Your task to perform on an android device: When is my next meeting? Image 0: 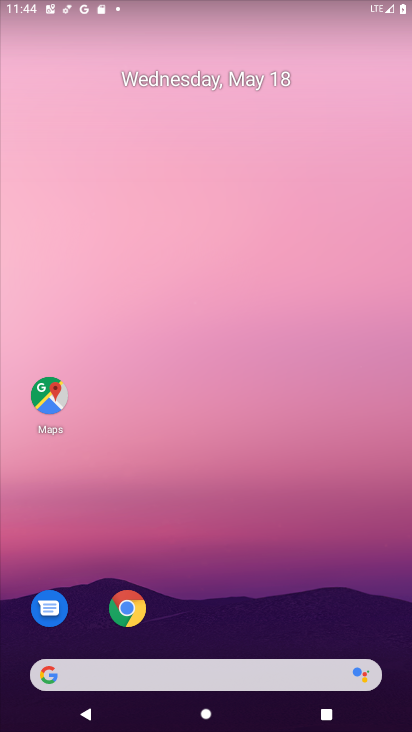
Step 0: drag from (168, 604) to (228, 189)
Your task to perform on an android device: When is my next meeting? Image 1: 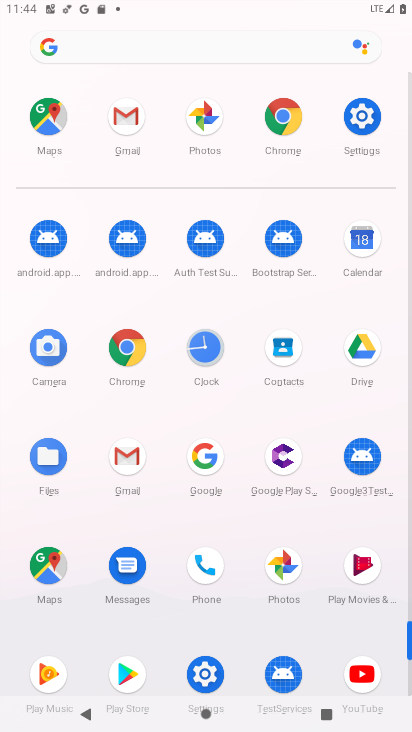
Step 1: click (363, 238)
Your task to perform on an android device: When is my next meeting? Image 2: 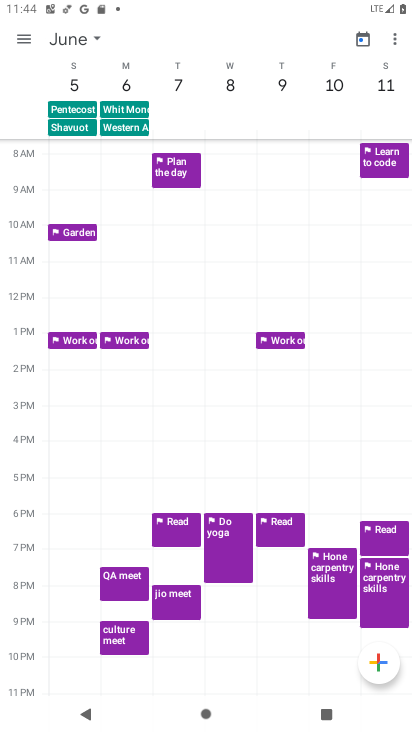
Step 2: click (77, 38)
Your task to perform on an android device: When is my next meeting? Image 3: 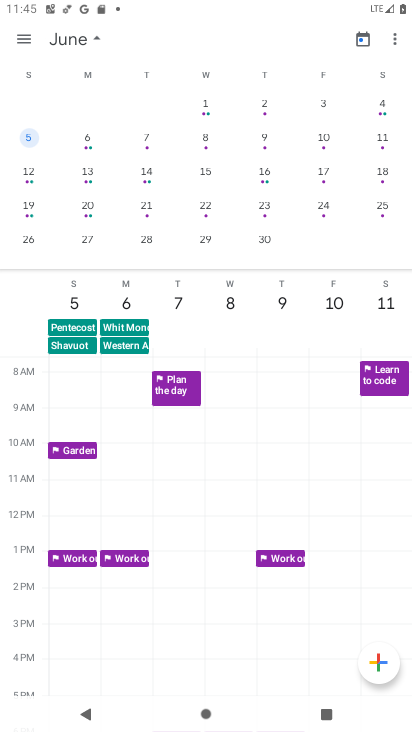
Step 3: click (75, 34)
Your task to perform on an android device: When is my next meeting? Image 4: 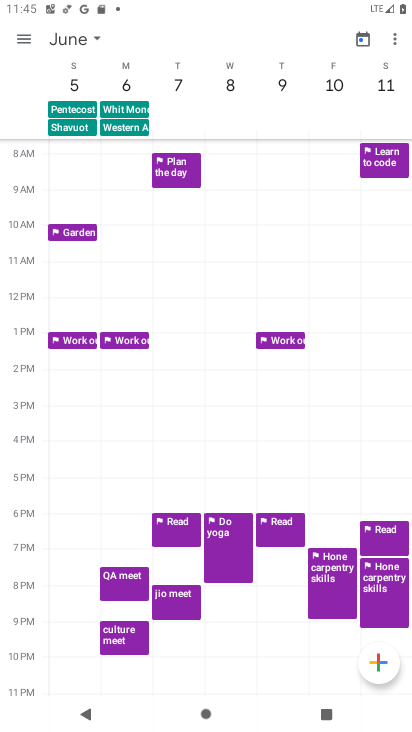
Step 4: click (82, 34)
Your task to perform on an android device: When is my next meeting? Image 5: 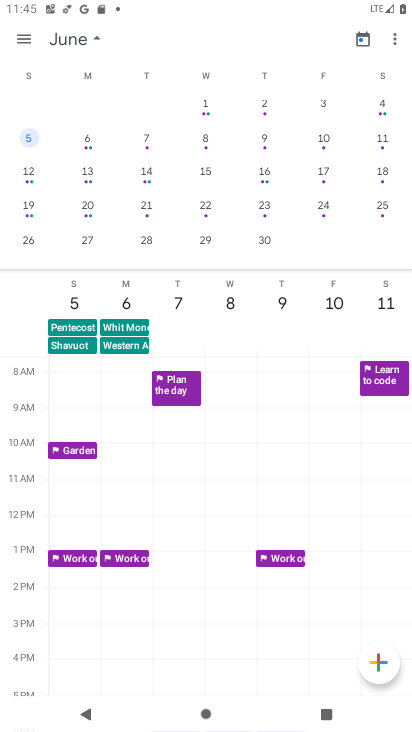
Step 5: drag from (30, 188) to (388, 228)
Your task to perform on an android device: When is my next meeting? Image 6: 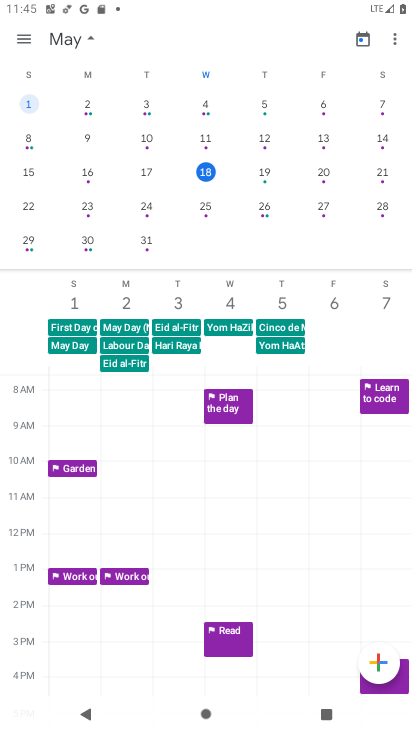
Step 6: click (210, 172)
Your task to perform on an android device: When is my next meeting? Image 7: 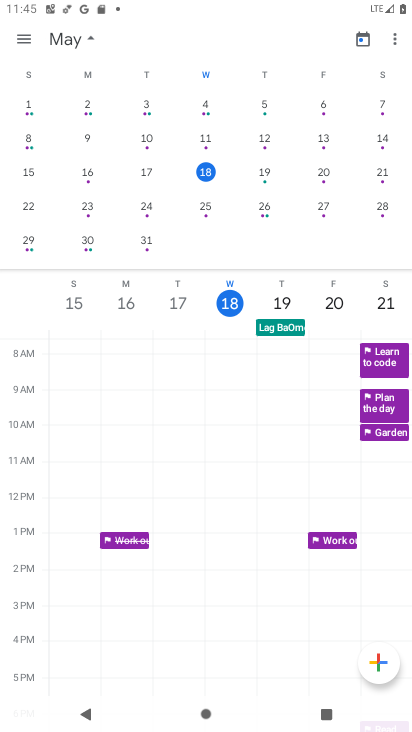
Step 7: click (26, 41)
Your task to perform on an android device: When is my next meeting? Image 8: 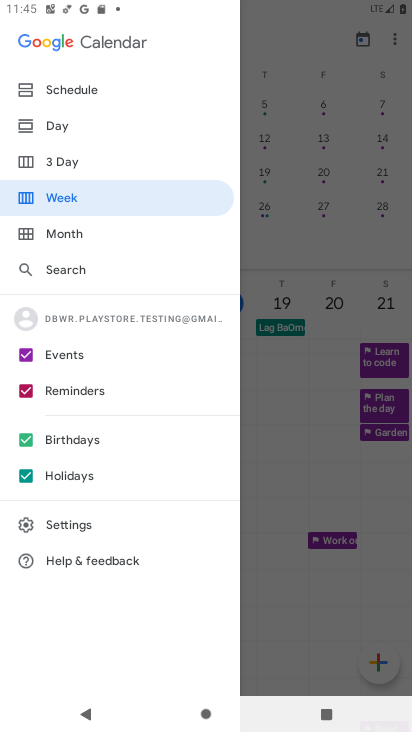
Step 8: click (88, 79)
Your task to perform on an android device: When is my next meeting? Image 9: 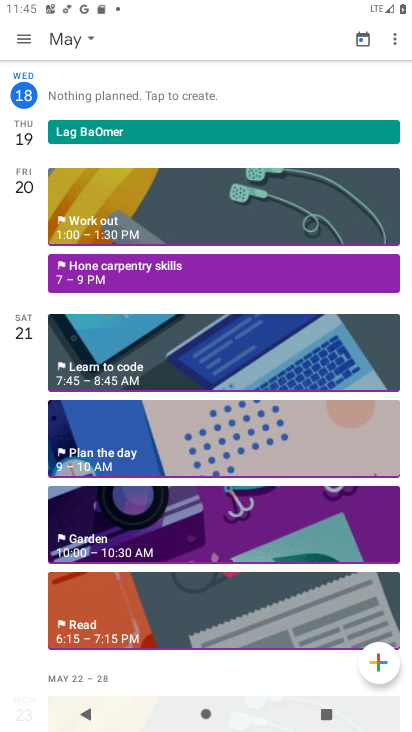
Step 9: click (90, 211)
Your task to perform on an android device: When is my next meeting? Image 10: 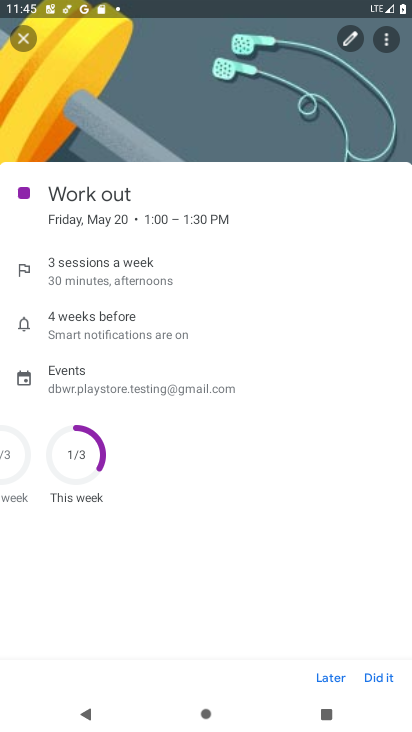
Step 10: task complete